Your task to perform on an android device: open app "PUBG MOBILE" Image 0: 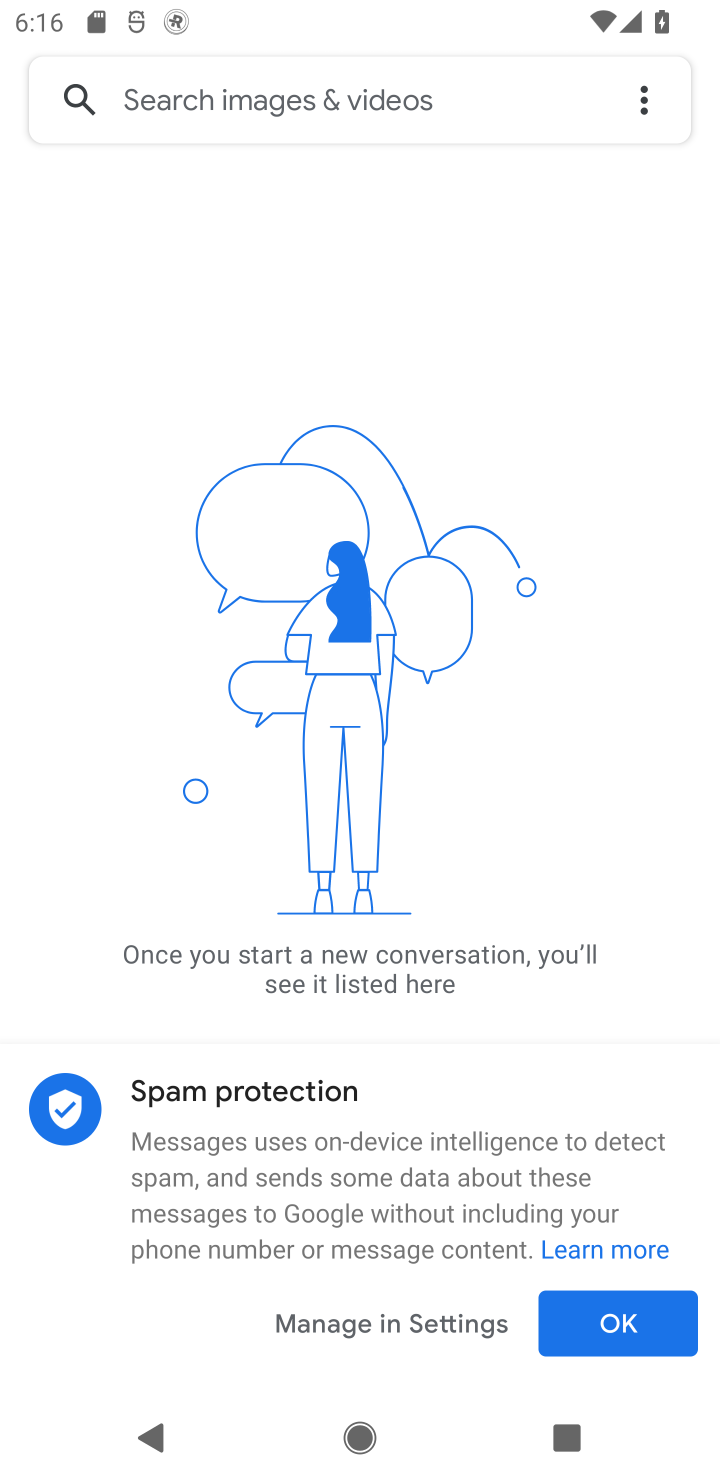
Step 0: press home button
Your task to perform on an android device: open app "PUBG MOBILE" Image 1: 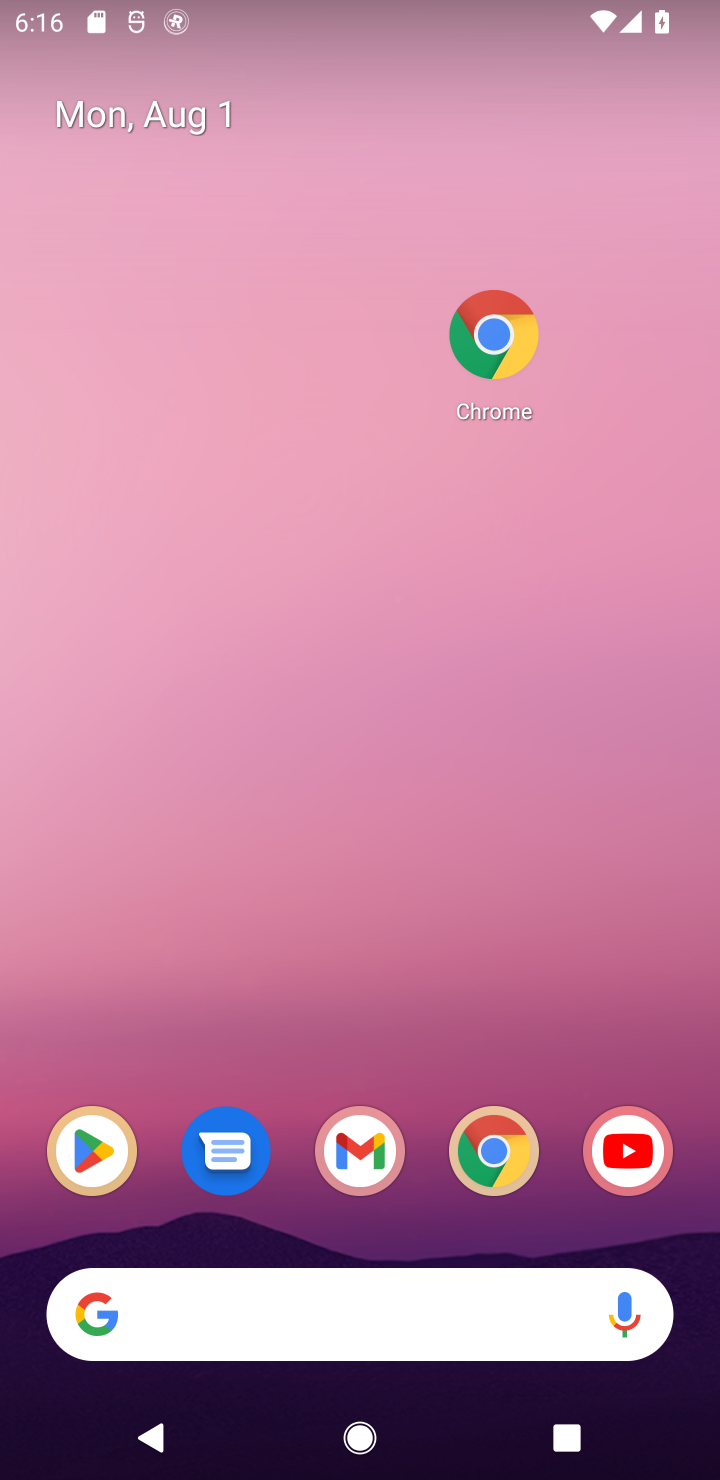
Step 1: click (100, 1144)
Your task to perform on an android device: open app "PUBG MOBILE" Image 2: 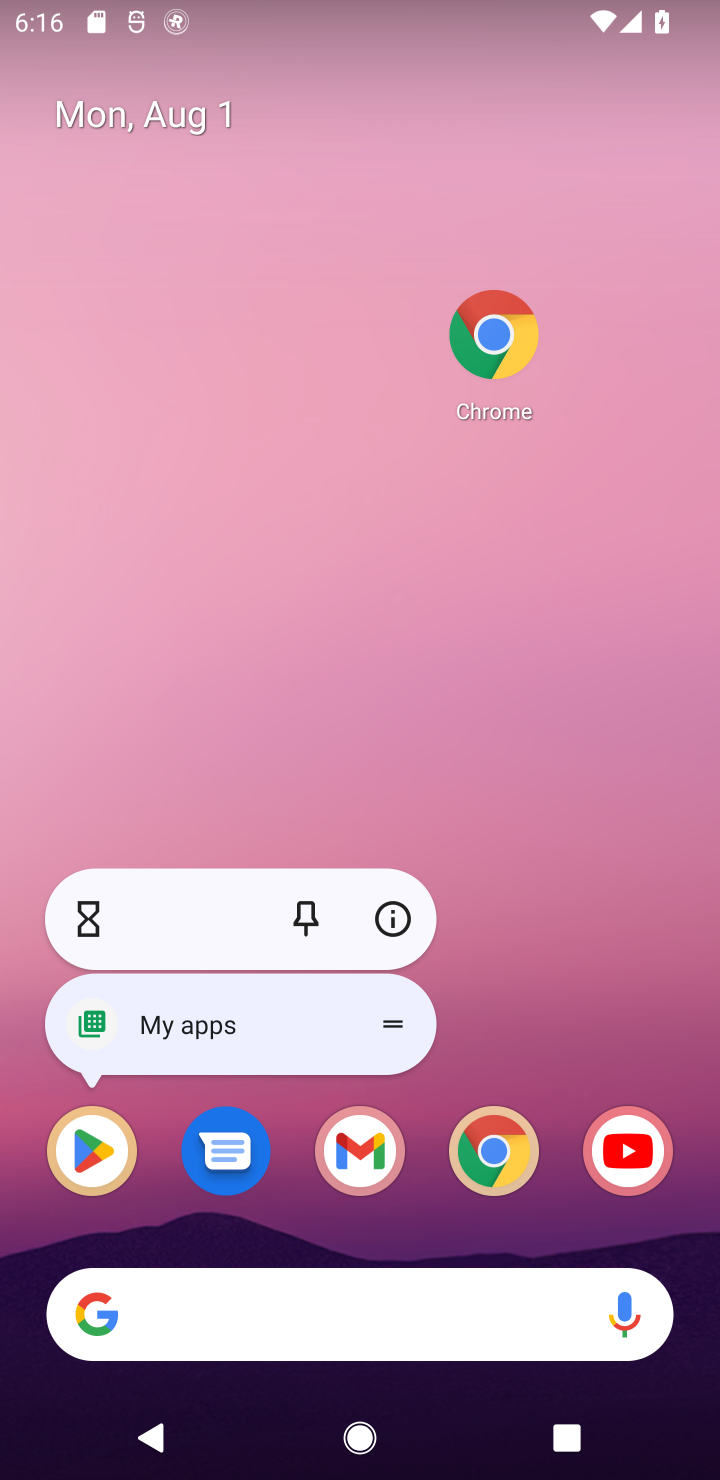
Step 2: click (83, 1169)
Your task to perform on an android device: open app "PUBG MOBILE" Image 3: 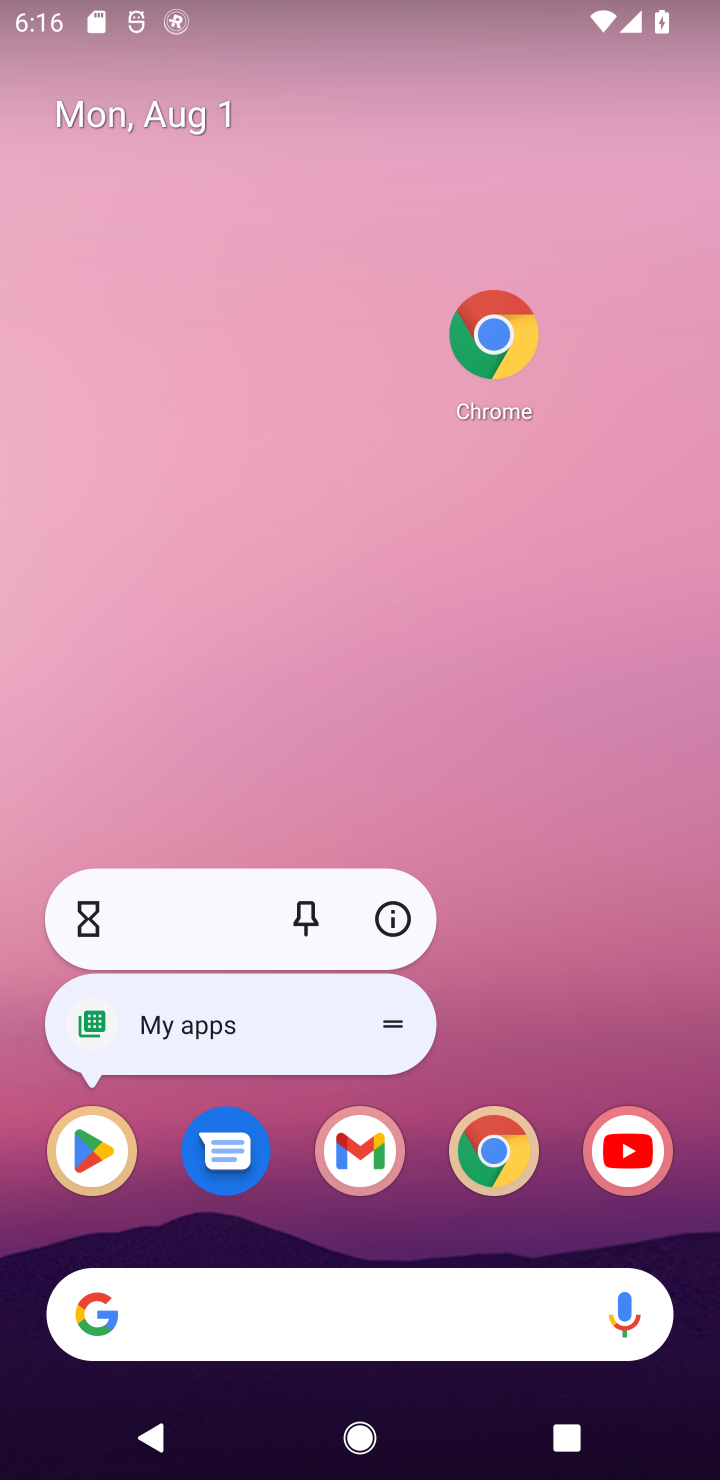
Step 3: click (83, 1169)
Your task to perform on an android device: open app "PUBG MOBILE" Image 4: 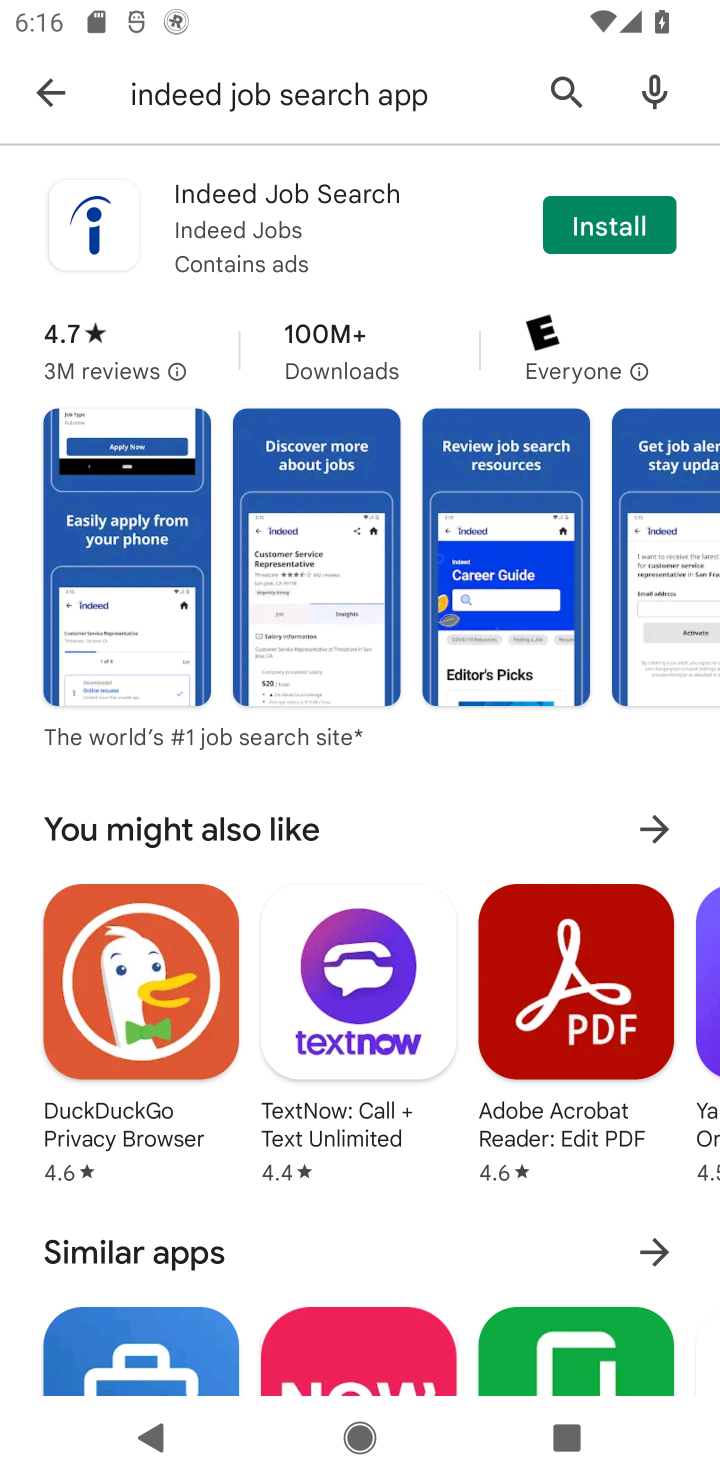
Step 4: click (559, 87)
Your task to perform on an android device: open app "PUBG MOBILE" Image 5: 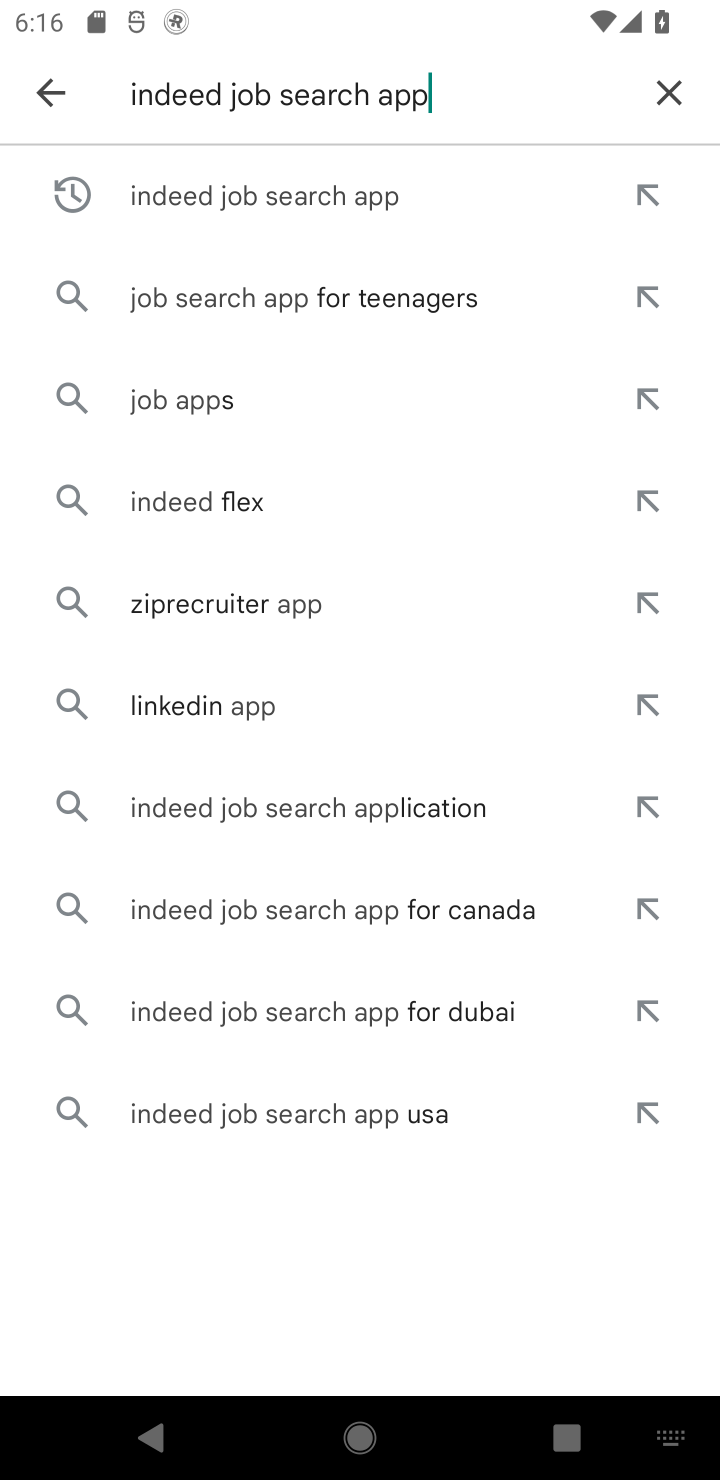
Step 5: click (653, 98)
Your task to perform on an android device: open app "PUBG MOBILE" Image 6: 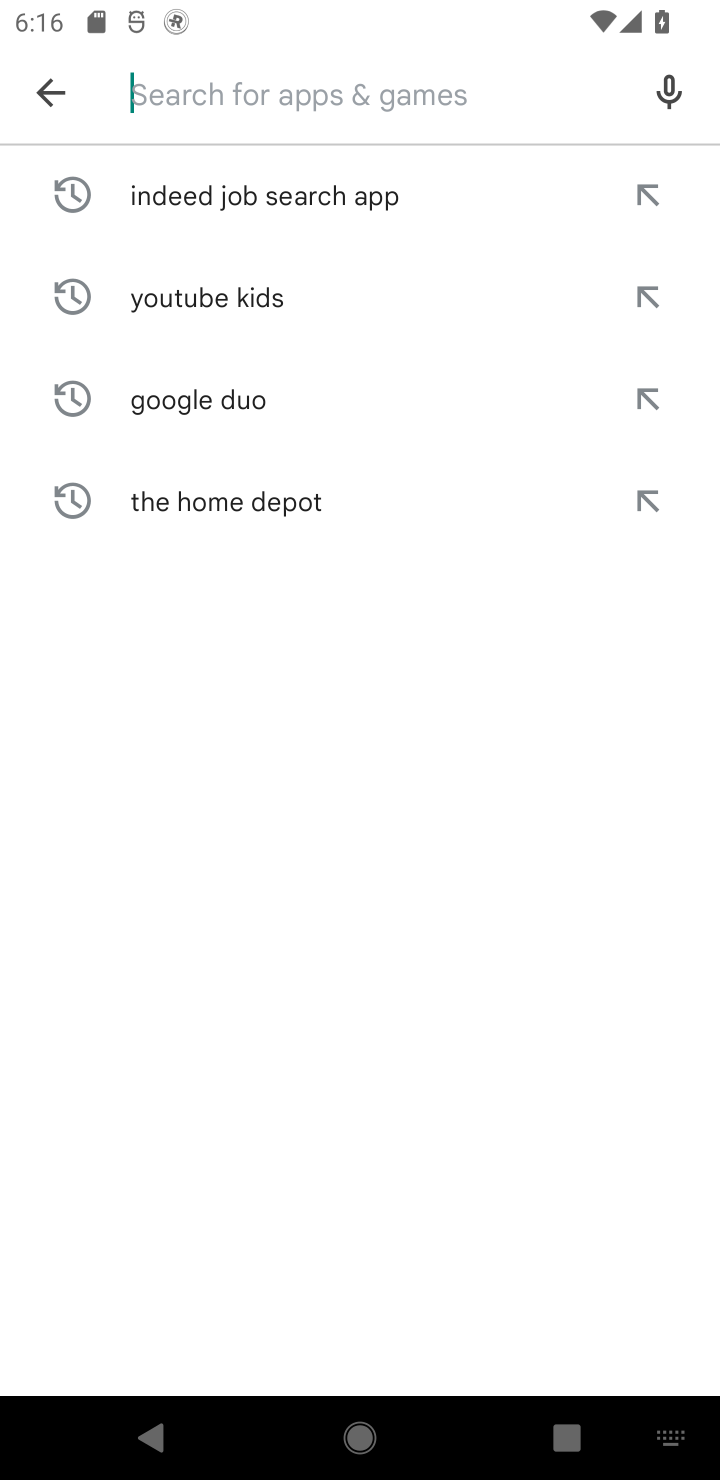
Step 6: type "PUBG MOBILE"
Your task to perform on an android device: open app "PUBG MOBILE" Image 7: 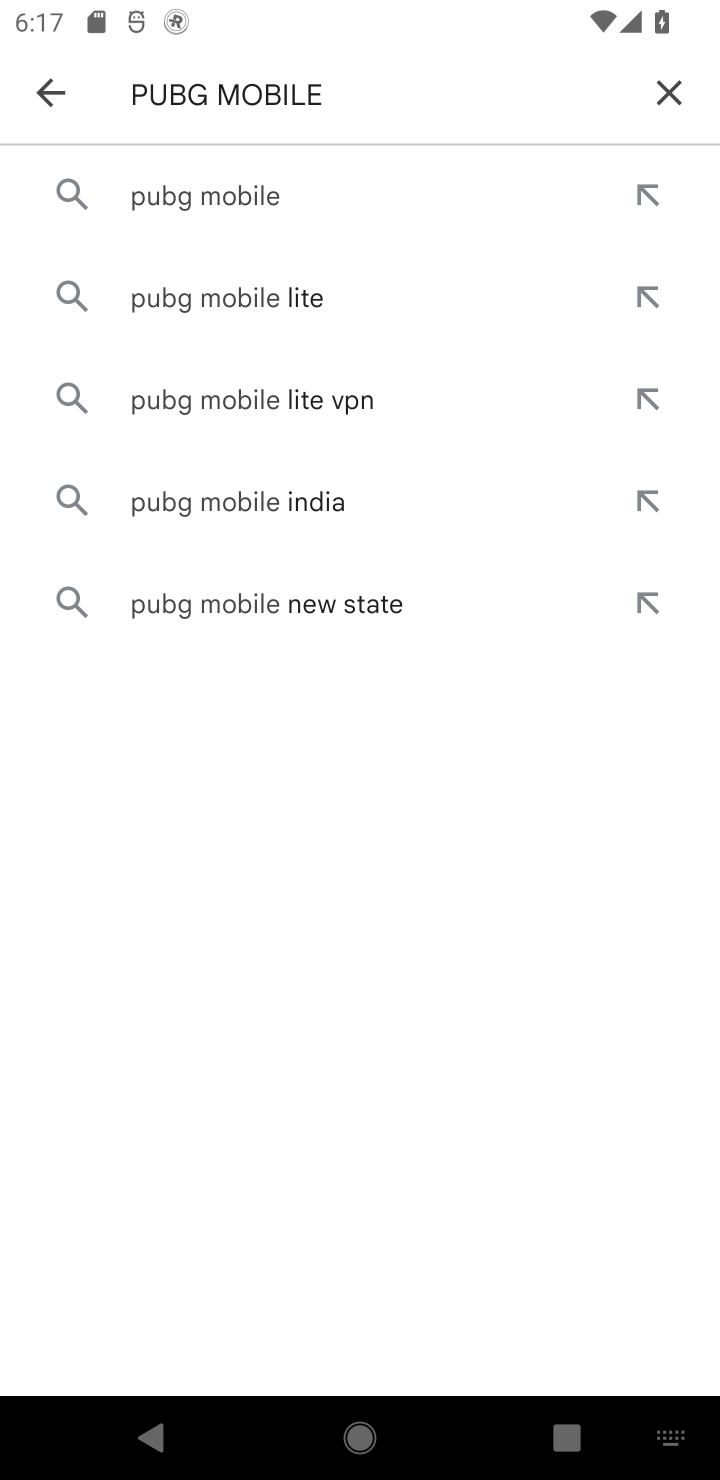
Step 7: click (219, 223)
Your task to perform on an android device: open app "PUBG MOBILE" Image 8: 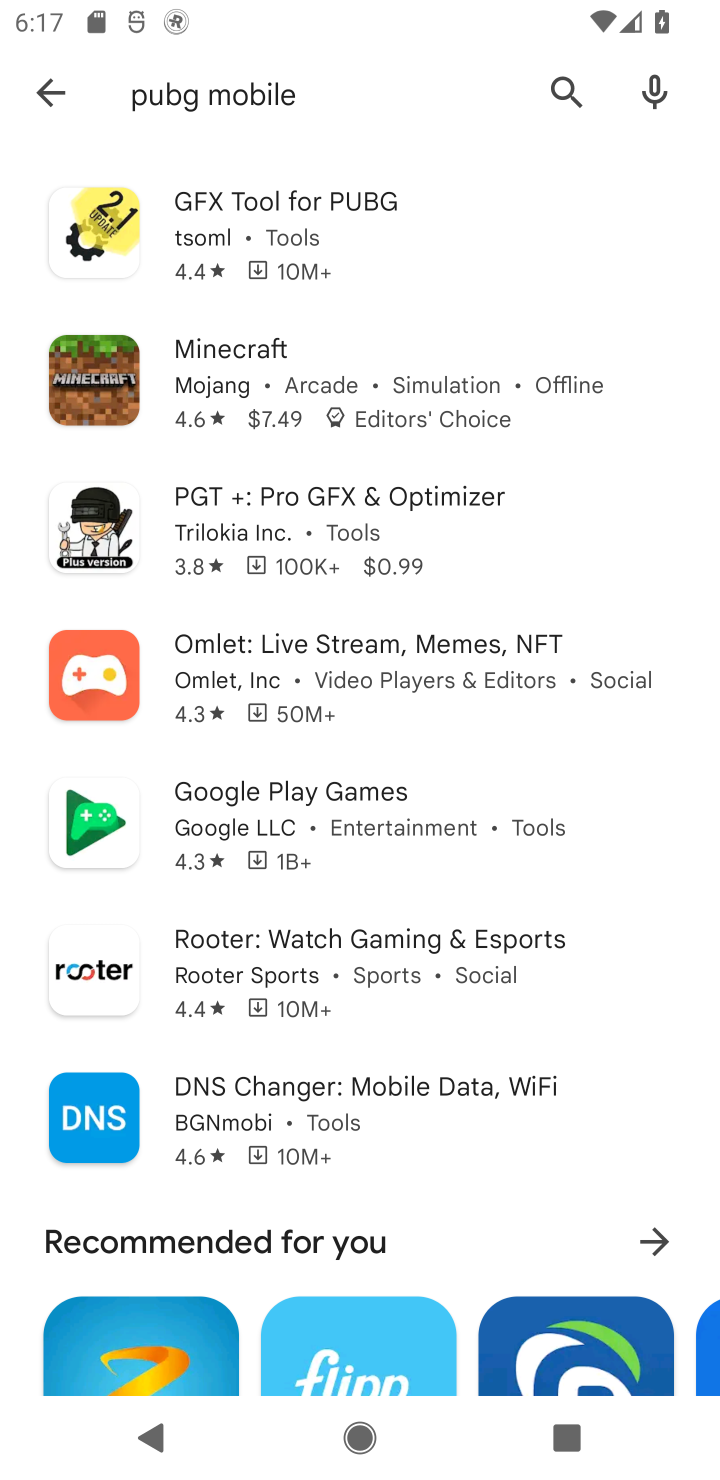
Step 8: task complete